Your task to perform on an android device: turn pop-ups on in chrome Image 0: 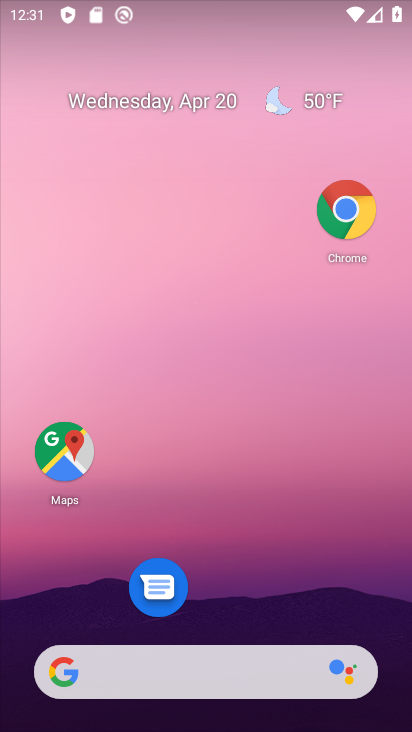
Step 0: click (342, 190)
Your task to perform on an android device: turn pop-ups on in chrome Image 1: 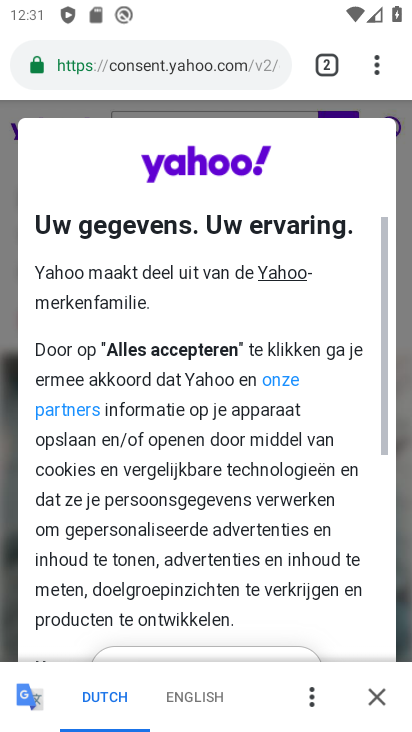
Step 1: click (376, 62)
Your task to perform on an android device: turn pop-ups on in chrome Image 2: 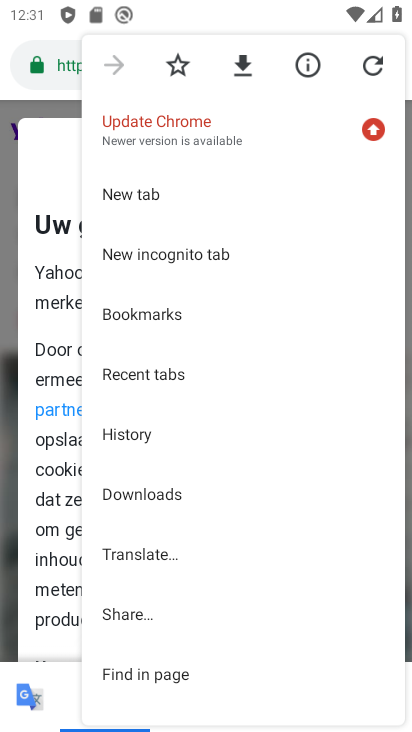
Step 2: drag from (173, 593) to (177, 177)
Your task to perform on an android device: turn pop-ups on in chrome Image 3: 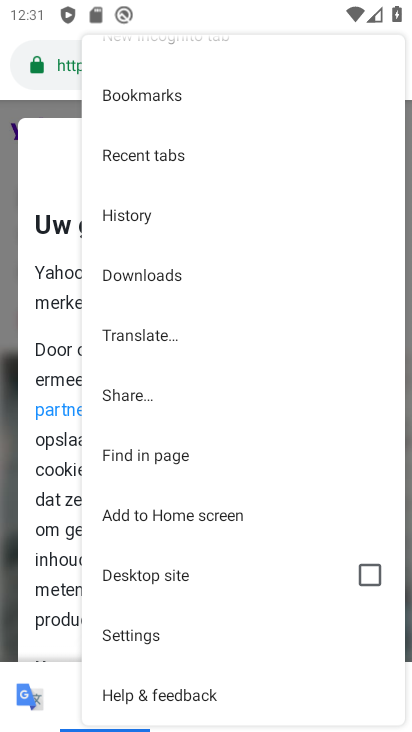
Step 3: click (150, 641)
Your task to perform on an android device: turn pop-ups on in chrome Image 4: 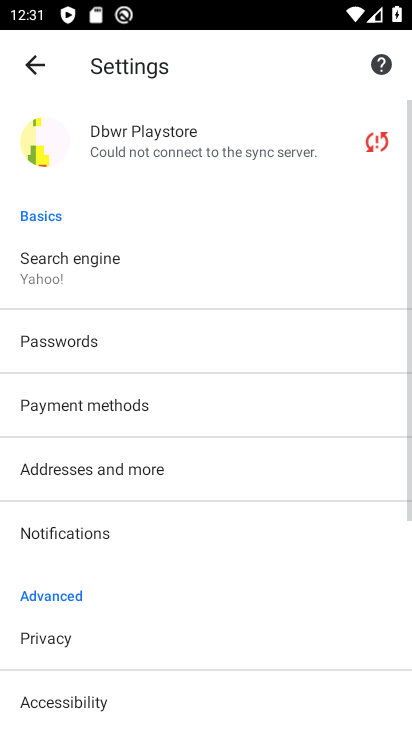
Step 4: drag from (86, 594) to (157, 171)
Your task to perform on an android device: turn pop-ups on in chrome Image 5: 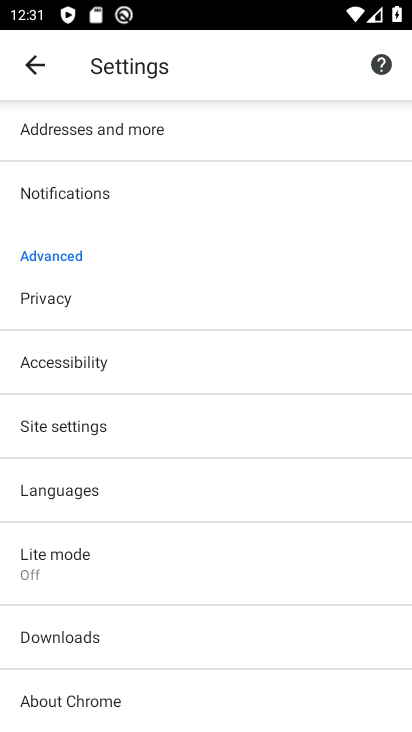
Step 5: click (72, 427)
Your task to perform on an android device: turn pop-ups on in chrome Image 6: 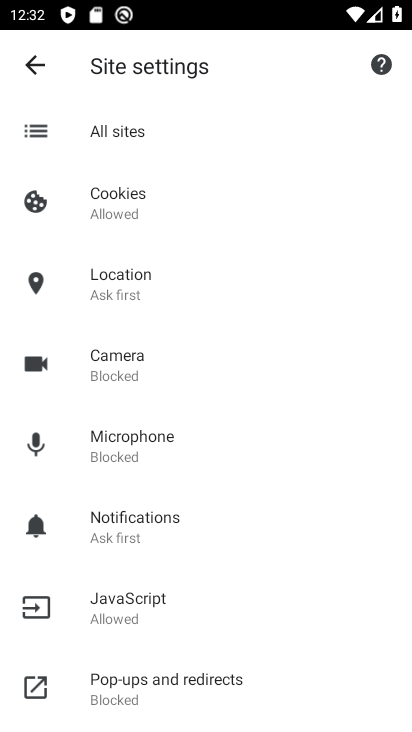
Step 6: click (130, 694)
Your task to perform on an android device: turn pop-ups on in chrome Image 7: 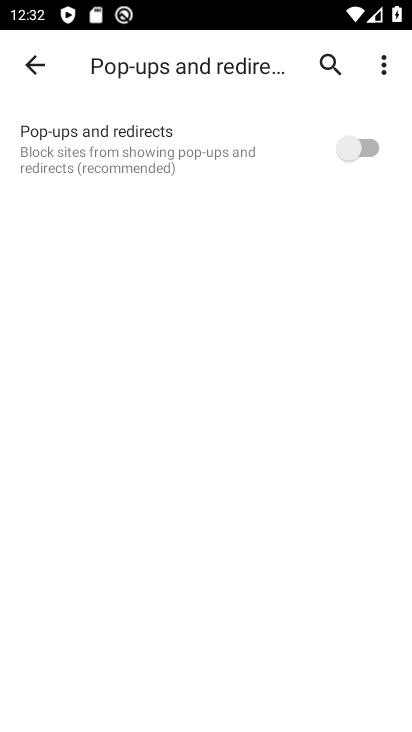
Step 7: click (371, 146)
Your task to perform on an android device: turn pop-ups on in chrome Image 8: 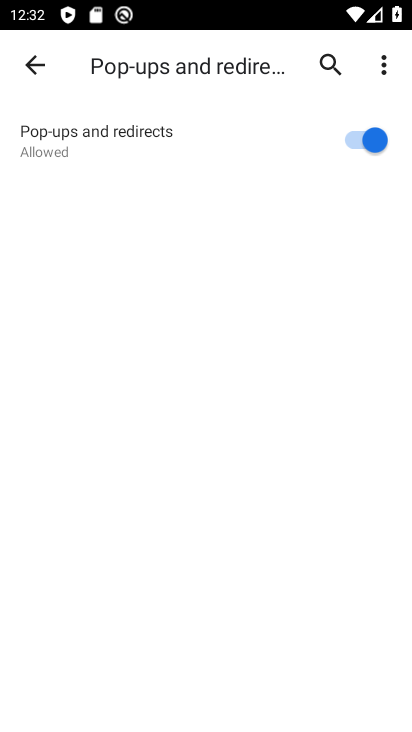
Step 8: task complete